Your task to perform on an android device: toggle priority inbox in the gmail app Image 0: 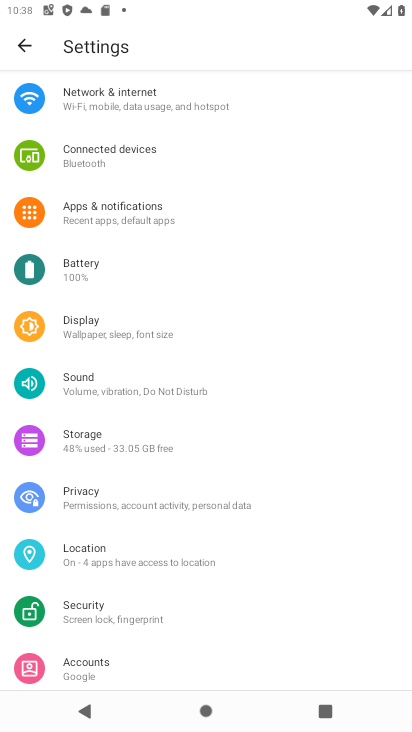
Step 0: press home button
Your task to perform on an android device: toggle priority inbox in the gmail app Image 1: 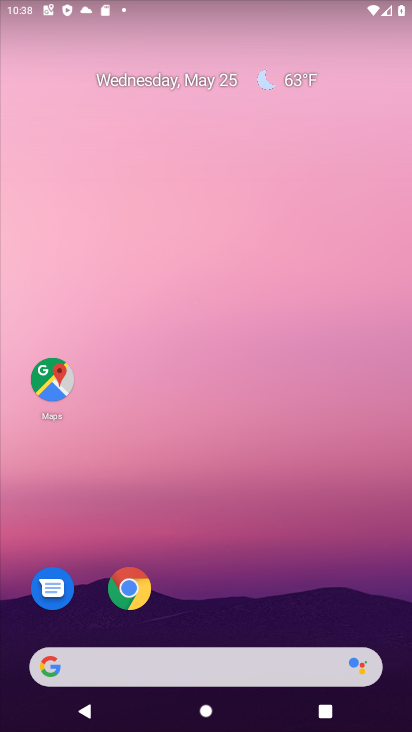
Step 1: drag from (337, 598) to (306, 47)
Your task to perform on an android device: toggle priority inbox in the gmail app Image 2: 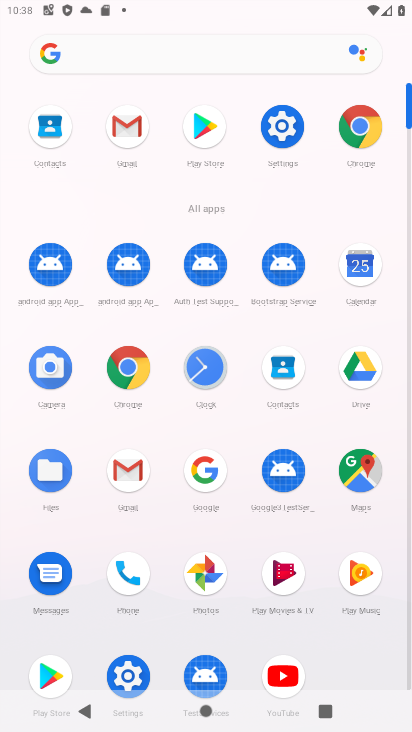
Step 2: click (127, 459)
Your task to perform on an android device: toggle priority inbox in the gmail app Image 3: 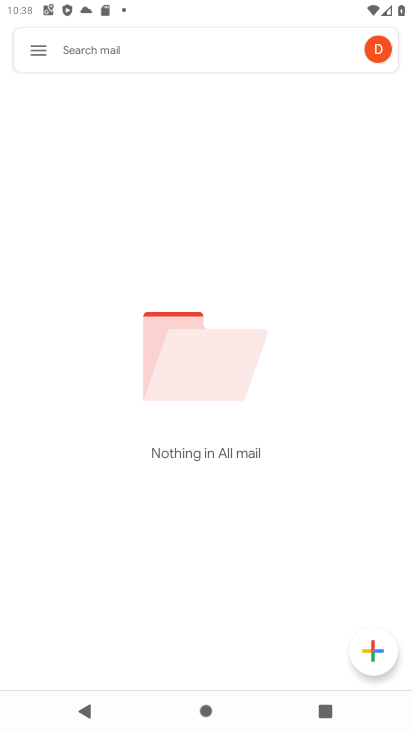
Step 3: click (45, 53)
Your task to perform on an android device: toggle priority inbox in the gmail app Image 4: 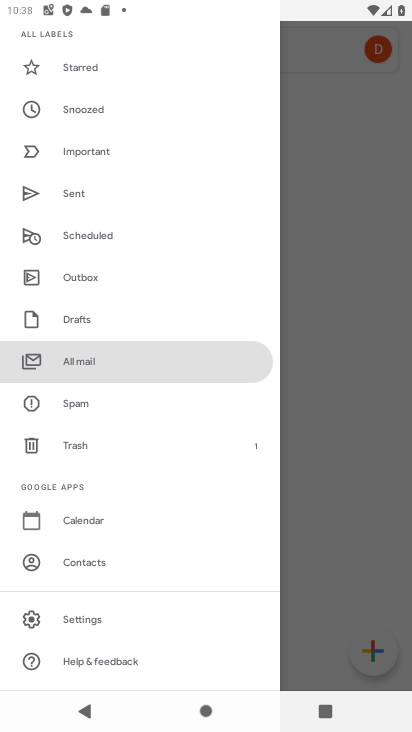
Step 4: click (99, 618)
Your task to perform on an android device: toggle priority inbox in the gmail app Image 5: 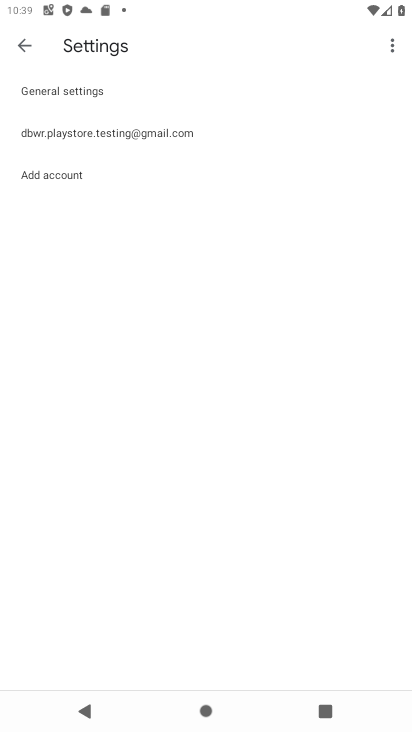
Step 5: click (93, 123)
Your task to perform on an android device: toggle priority inbox in the gmail app Image 6: 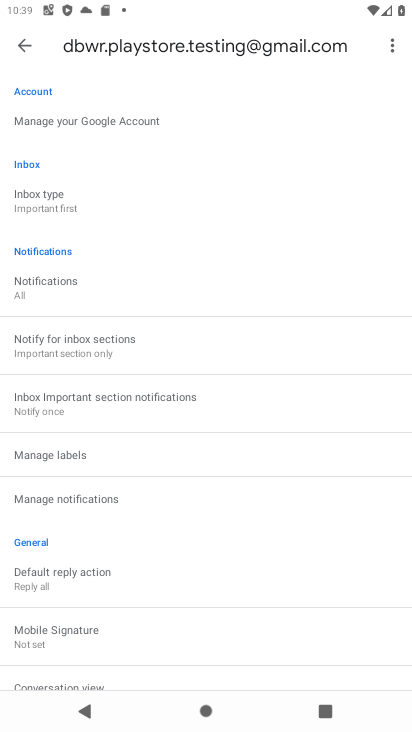
Step 6: click (139, 199)
Your task to perform on an android device: toggle priority inbox in the gmail app Image 7: 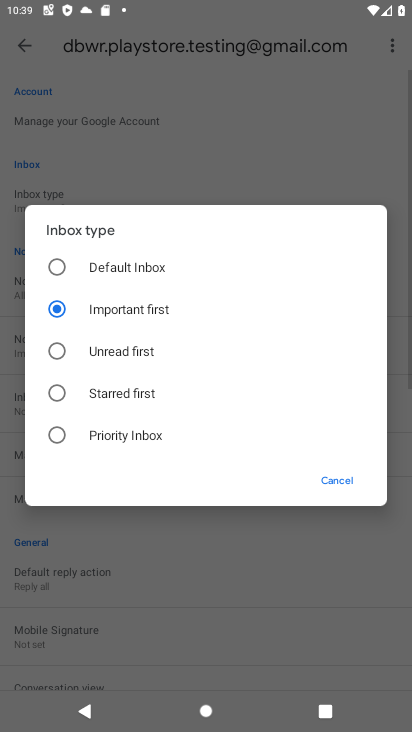
Step 7: click (111, 429)
Your task to perform on an android device: toggle priority inbox in the gmail app Image 8: 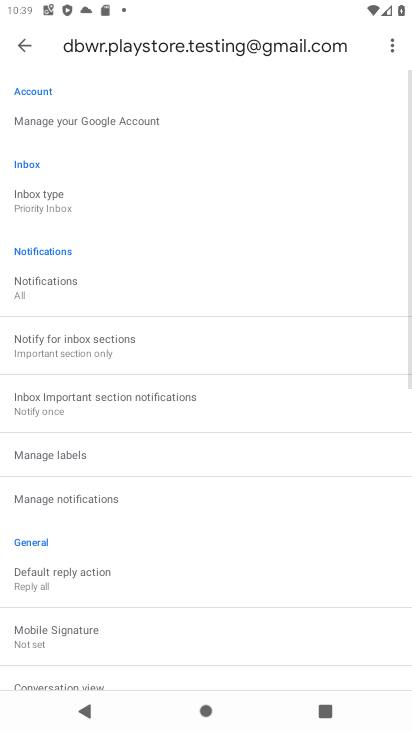
Step 8: task complete